Your task to perform on an android device: Open Google Maps and go to "Timeline" Image 0: 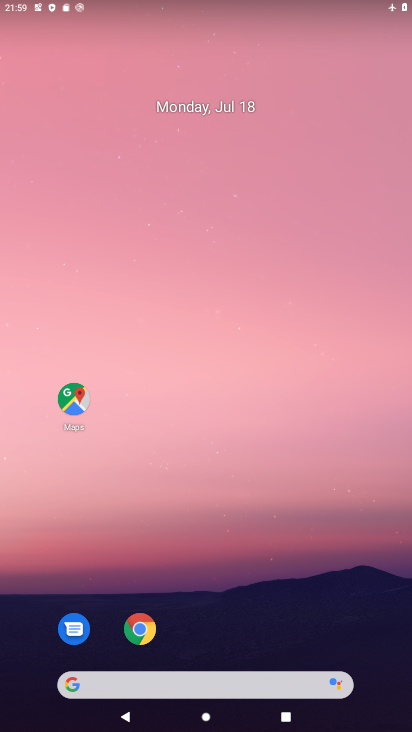
Step 0: drag from (317, 599) to (338, 80)
Your task to perform on an android device: Open Google Maps and go to "Timeline" Image 1: 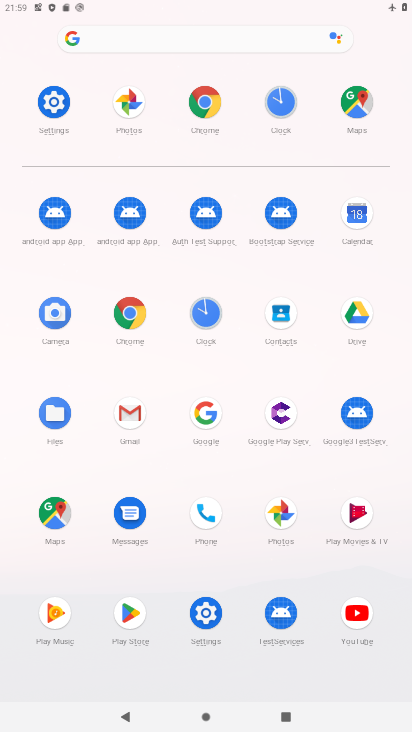
Step 1: click (51, 510)
Your task to perform on an android device: Open Google Maps and go to "Timeline" Image 2: 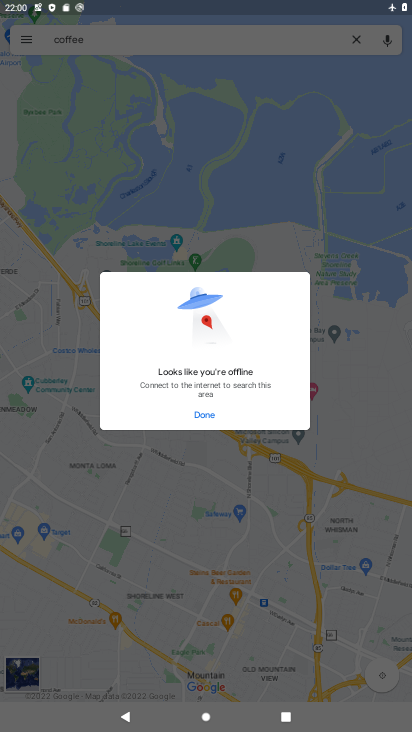
Step 2: click (218, 416)
Your task to perform on an android device: Open Google Maps and go to "Timeline" Image 3: 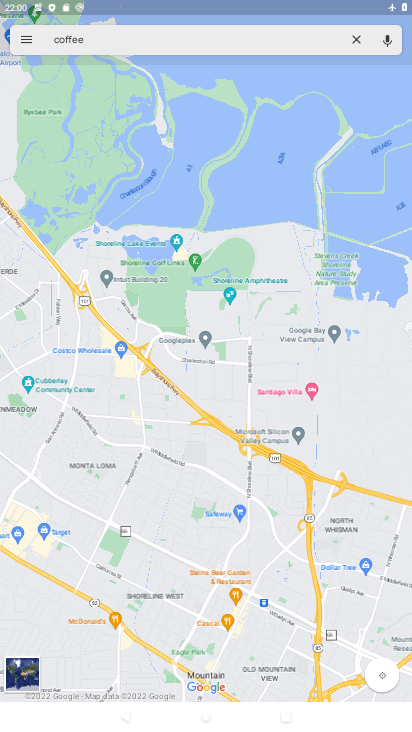
Step 3: click (15, 35)
Your task to perform on an android device: Open Google Maps and go to "Timeline" Image 4: 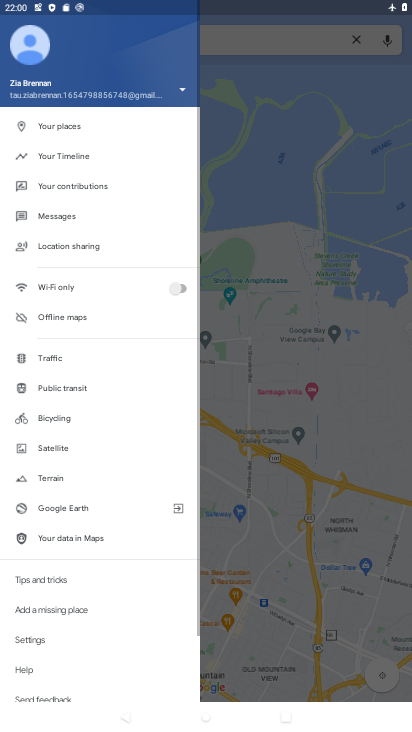
Step 4: click (21, 34)
Your task to perform on an android device: Open Google Maps and go to "Timeline" Image 5: 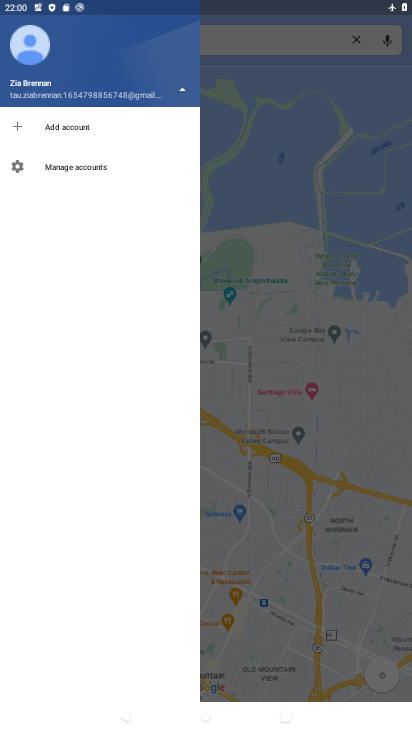
Step 5: click (37, 41)
Your task to perform on an android device: Open Google Maps and go to "Timeline" Image 6: 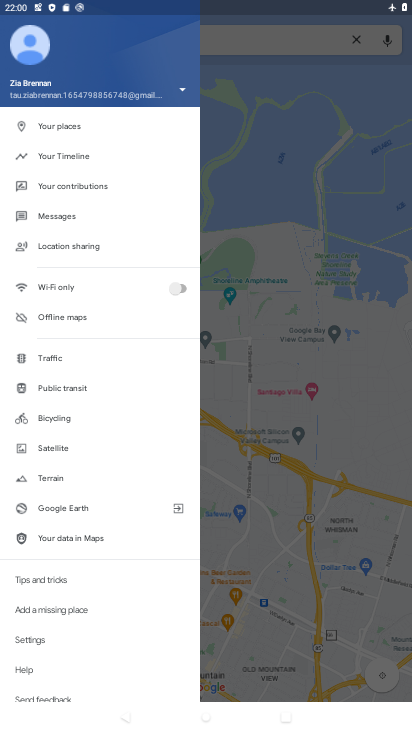
Step 6: click (75, 160)
Your task to perform on an android device: Open Google Maps and go to "Timeline" Image 7: 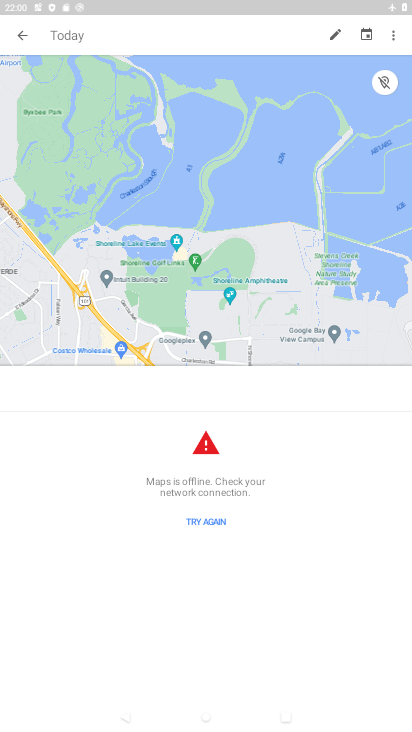
Step 7: task complete